Your task to perform on an android device: What is the recent news? Image 0: 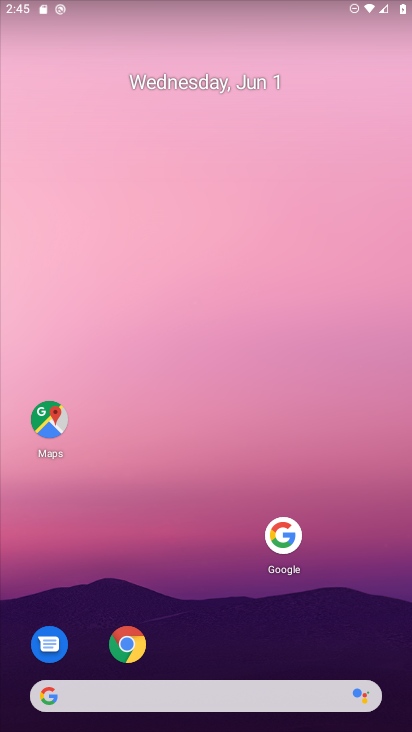
Step 0: click (48, 701)
Your task to perform on an android device: What is the recent news? Image 1: 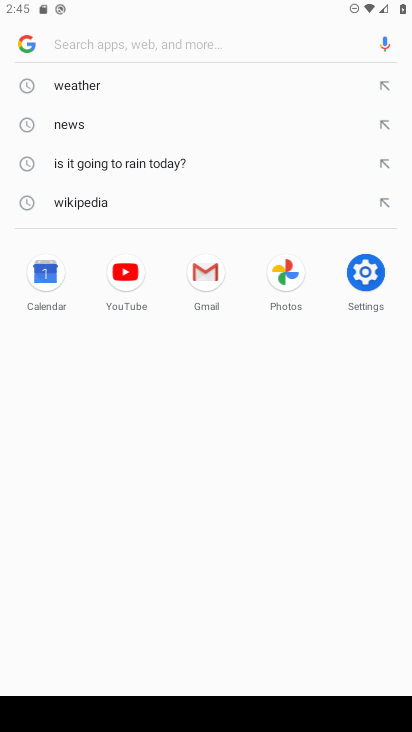
Step 1: click (78, 129)
Your task to perform on an android device: What is the recent news? Image 2: 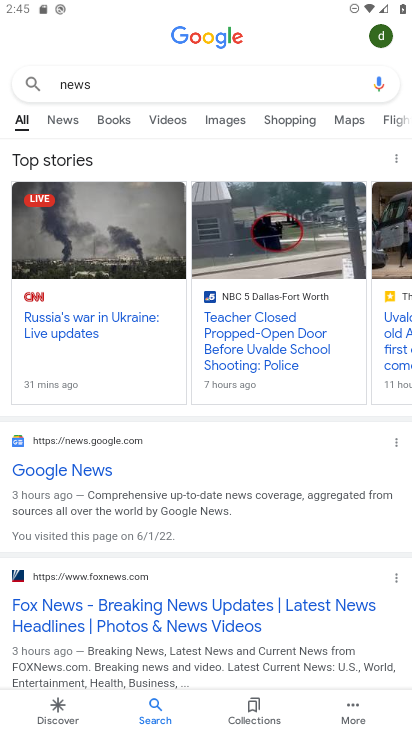
Step 2: click (67, 118)
Your task to perform on an android device: What is the recent news? Image 3: 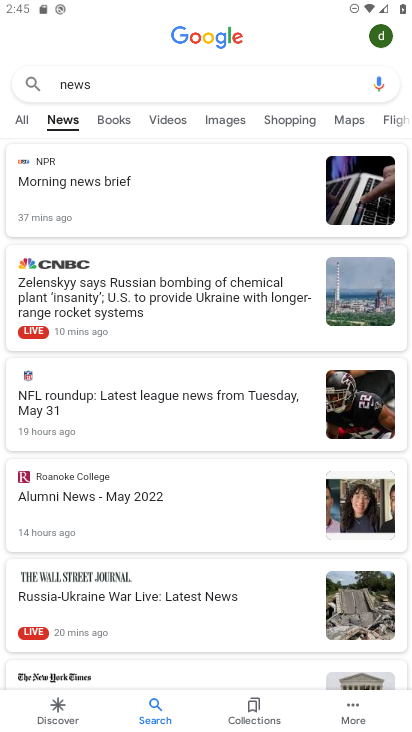
Step 3: task complete